Your task to perform on an android device: see creations saved in the google photos Image 0: 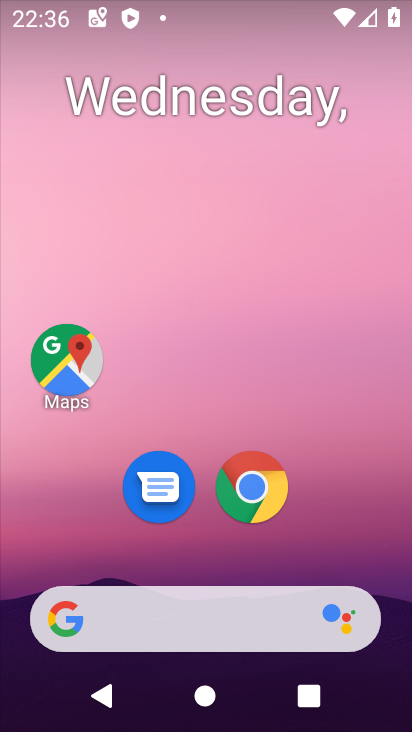
Step 0: drag from (185, 529) to (247, 0)
Your task to perform on an android device: see creations saved in the google photos Image 1: 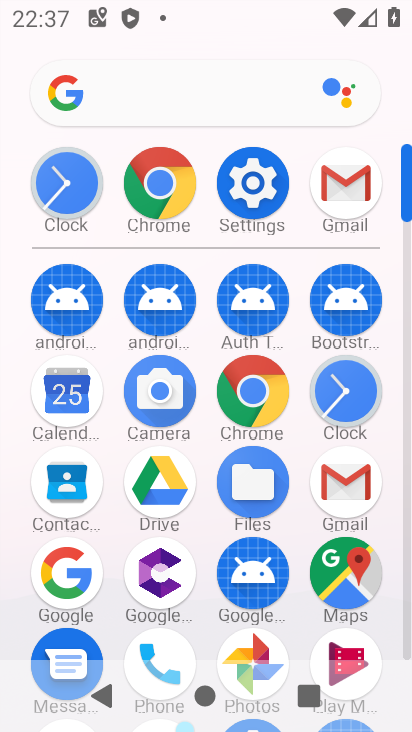
Step 1: click (270, 635)
Your task to perform on an android device: see creations saved in the google photos Image 2: 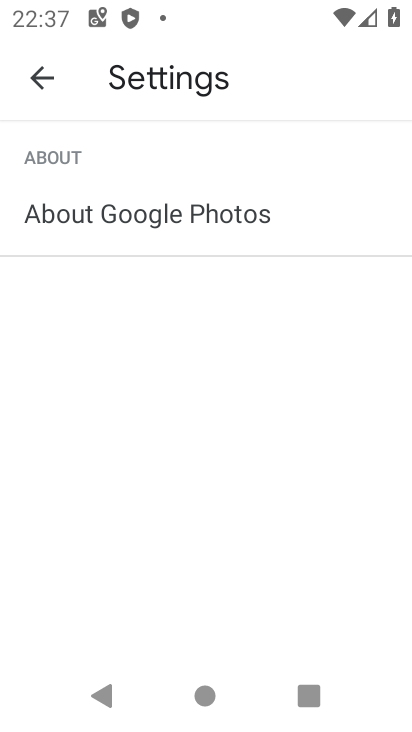
Step 2: click (43, 78)
Your task to perform on an android device: see creations saved in the google photos Image 3: 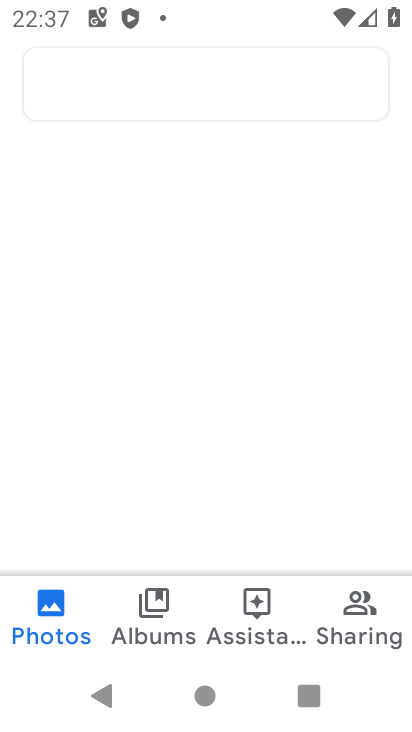
Step 3: press home button
Your task to perform on an android device: see creations saved in the google photos Image 4: 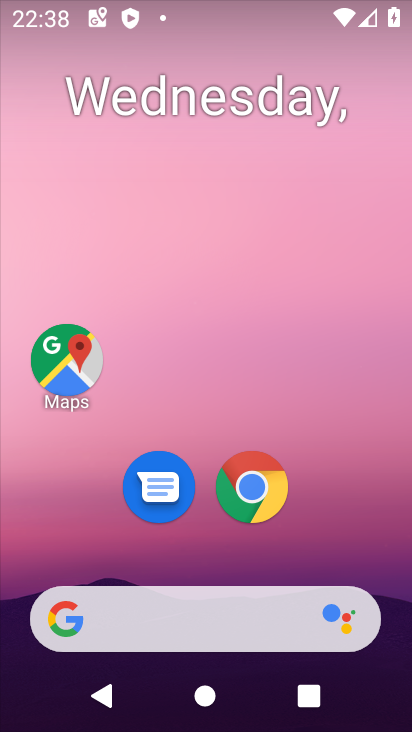
Step 4: drag from (137, 581) to (198, 127)
Your task to perform on an android device: see creations saved in the google photos Image 5: 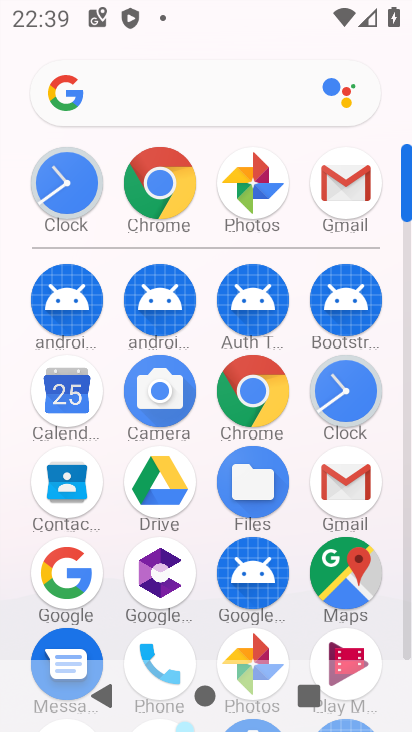
Step 5: click (253, 652)
Your task to perform on an android device: see creations saved in the google photos Image 6: 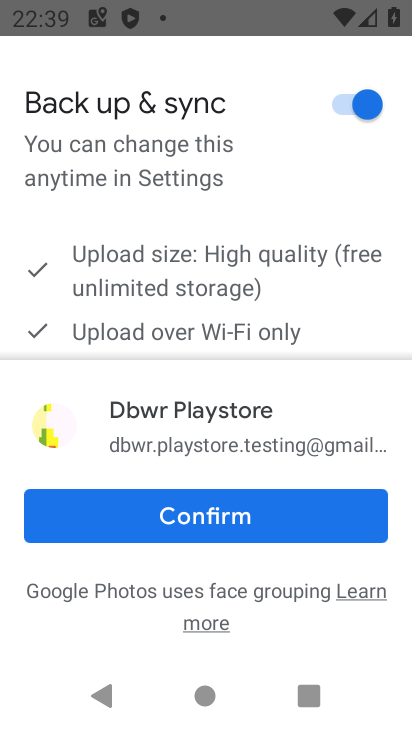
Step 6: click (312, 529)
Your task to perform on an android device: see creations saved in the google photos Image 7: 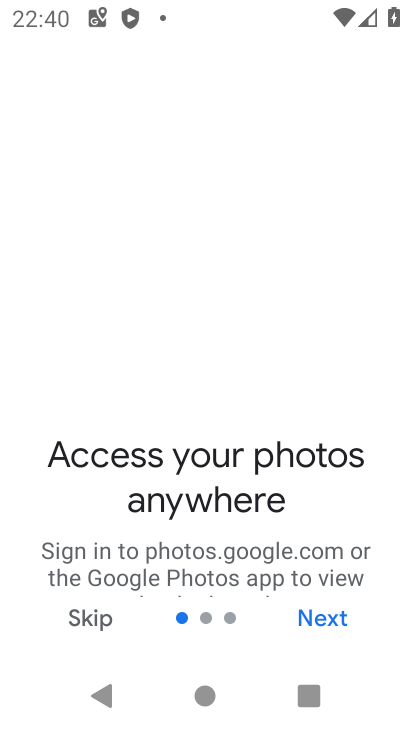
Step 7: click (331, 608)
Your task to perform on an android device: see creations saved in the google photos Image 8: 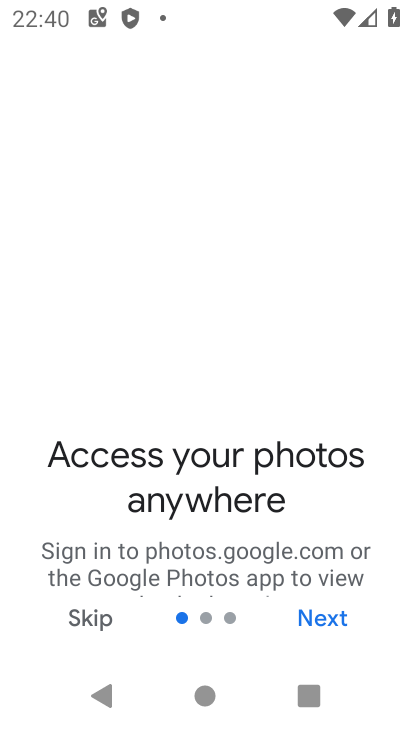
Step 8: click (331, 608)
Your task to perform on an android device: see creations saved in the google photos Image 9: 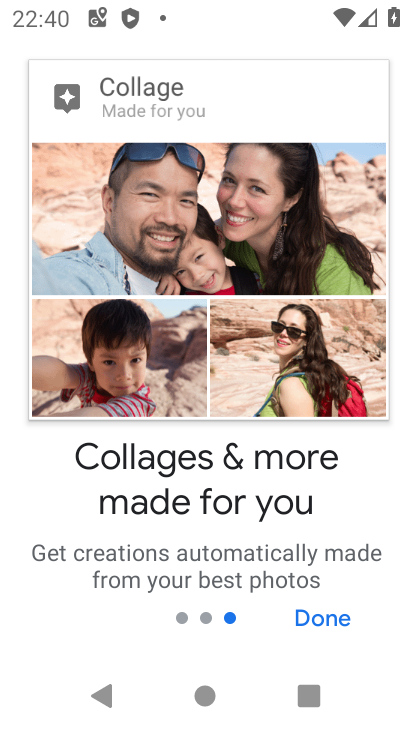
Step 9: click (341, 619)
Your task to perform on an android device: see creations saved in the google photos Image 10: 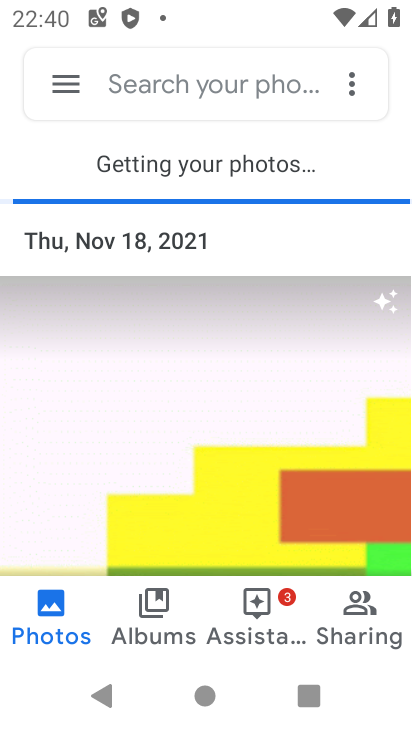
Step 10: click (158, 84)
Your task to perform on an android device: see creations saved in the google photos Image 11: 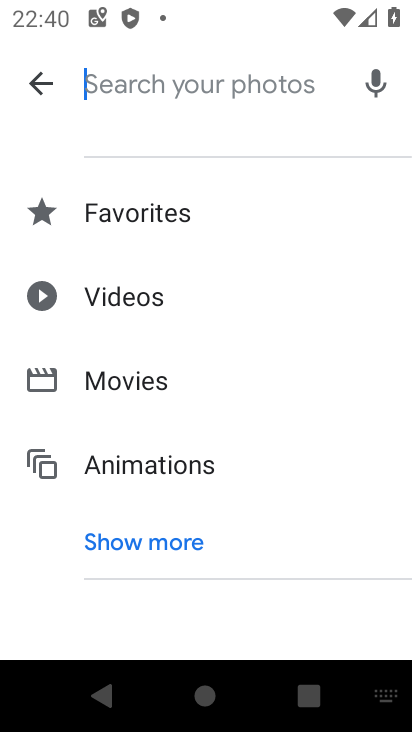
Step 11: click (175, 538)
Your task to perform on an android device: see creations saved in the google photos Image 12: 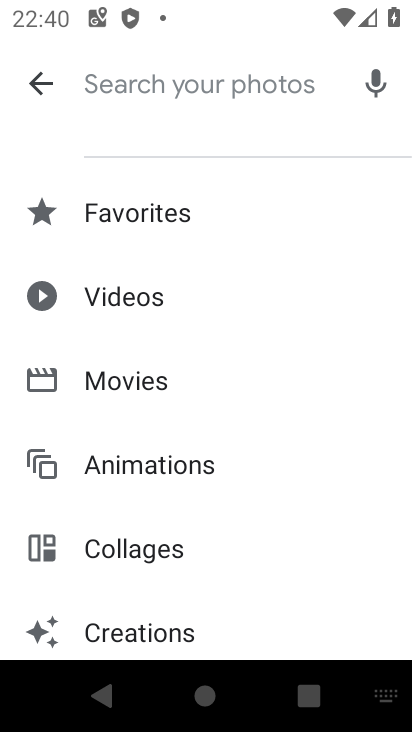
Step 12: click (170, 625)
Your task to perform on an android device: see creations saved in the google photos Image 13: 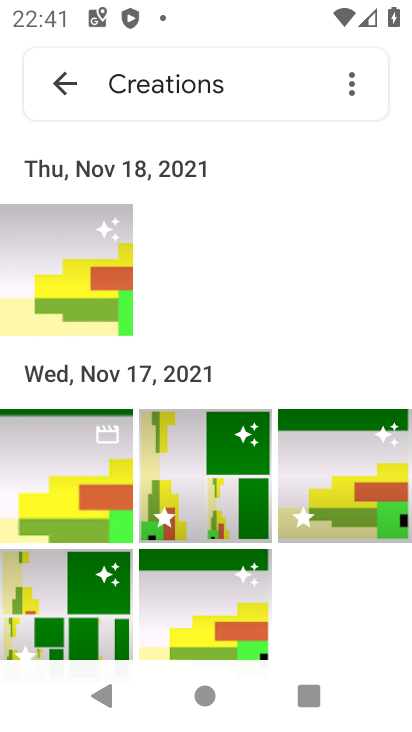
Step 13: task complete